Your task to perform on an android device: toggle airplane mode Image 0: 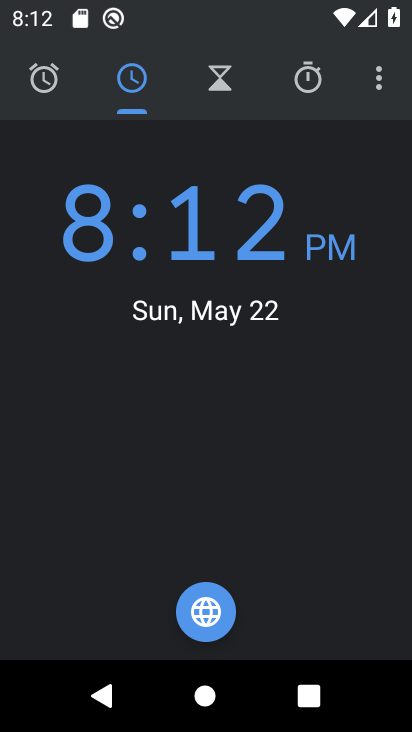
Step 0: press back button
Your task to perform on an android device: toggle airplane mode Image 1: 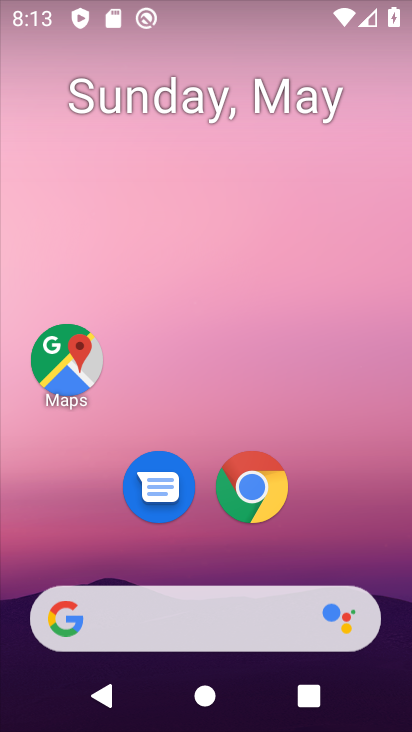
Step 1: drag from (347, 42) to (315, 533)
Your task to perform on an android device: toggle airplane mode Image 2: 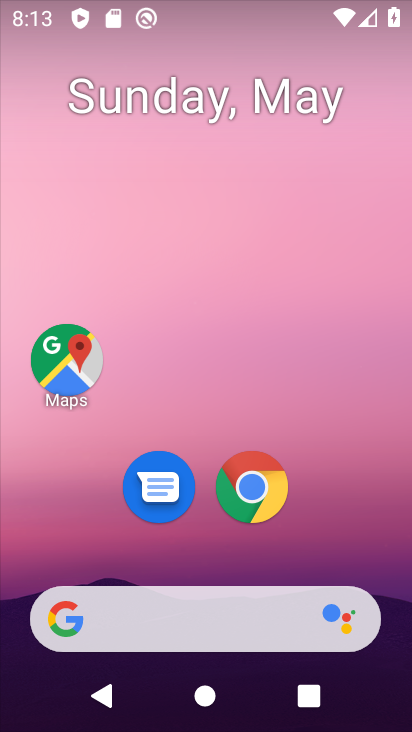
Step 2: drag from (202, 5) to (187, 400)
Your task to perform on an android device: toggle airplane mode Image 3: 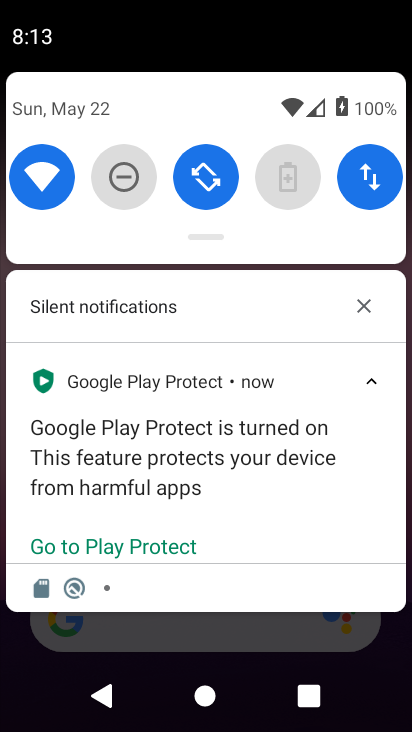
Step 3: drag from (211, 255) to (199, 590)
Your task to perform on an android device: toggle airplane mode Image 4: 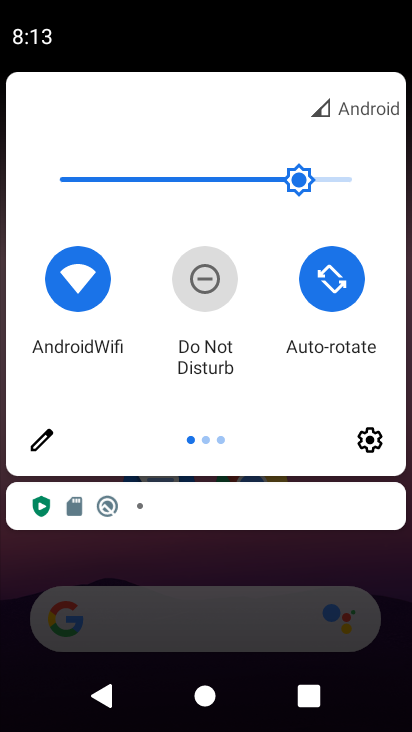
Step 4: drag from (290, 296) to (7, 264)
Your task to perform on an android device: toggle airplane mode Image 5: 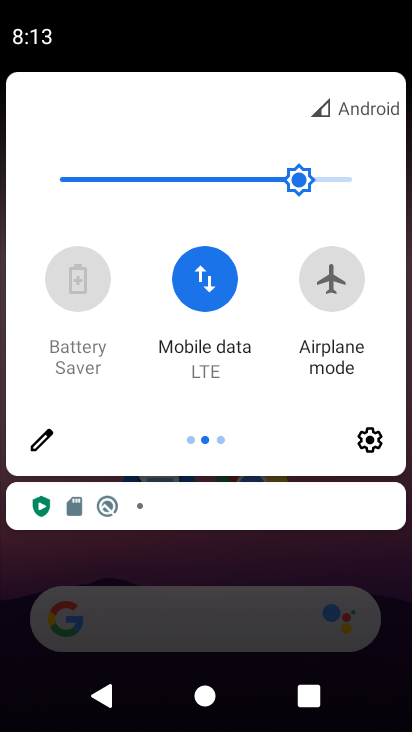
Step 5: click (326, 289)
Your task to perform on an android device: toggle airplane mode Image 6: 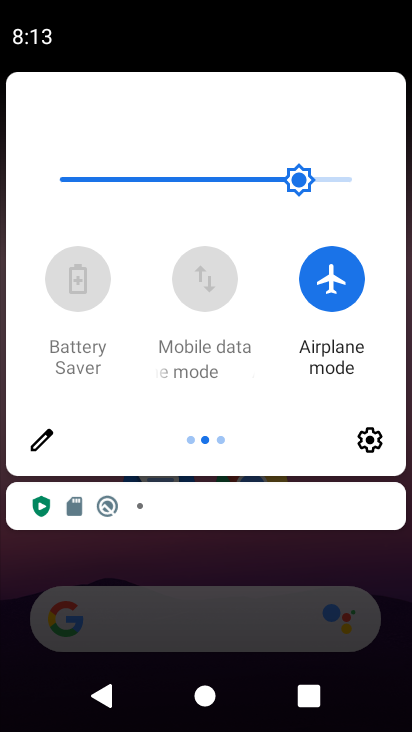
Step 6: task complete